Your task to perform on an android device: open app "Nova Launcher" Image 0: 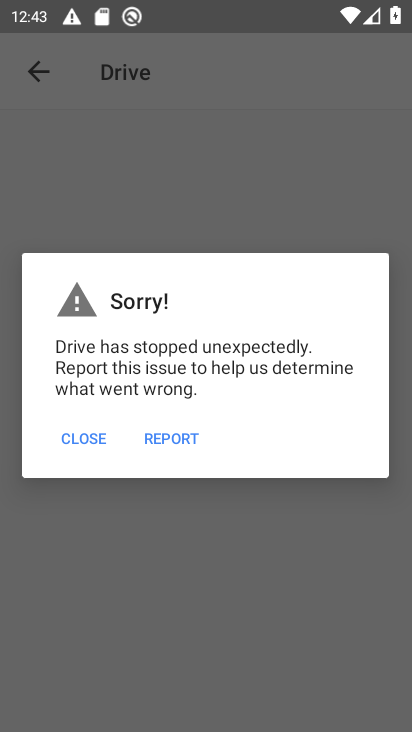
Step 0: press back button
Your task to perform on an android device: open app "Nova Launcher" Image 1: 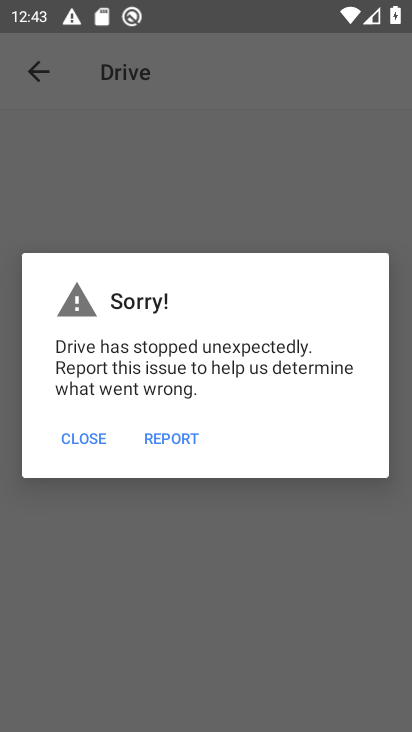
Step 1: press home button
Your task to perform on an android device: open app "Nova Launcher" Image 2: 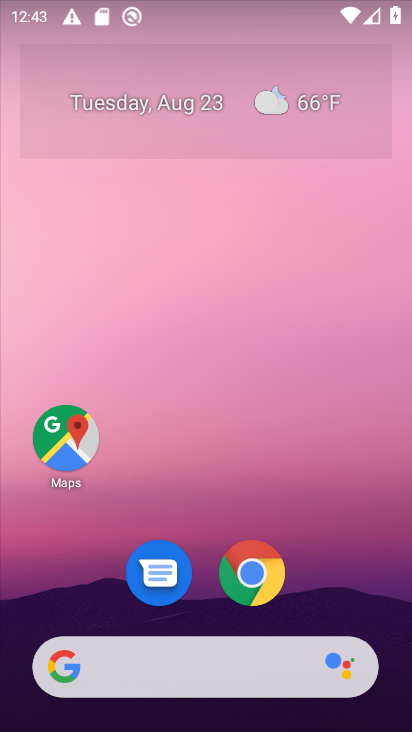
Step 2: drag from (180, 495) to (233, 175)
Your task to perform on an android device: open app "Nova Launcher" Image 3: 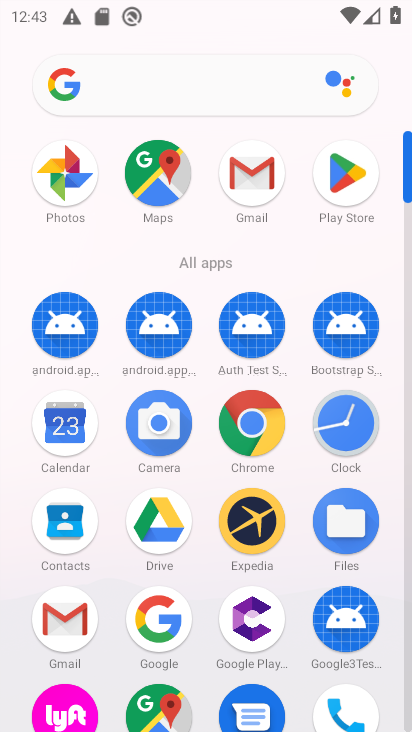
Step 3: click (332, 191)
Your task to perform on an android device: open app "Nova Launcher" Image 4: 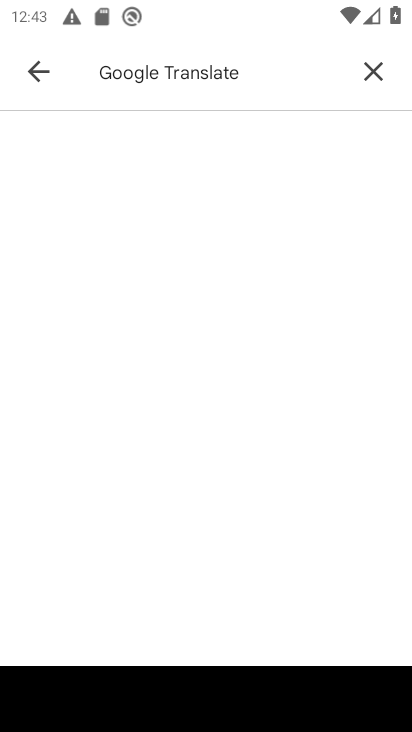
Step 4: click (370, 69)
Your task to perform on an android device: open app "Nova Launcher" Image 5: 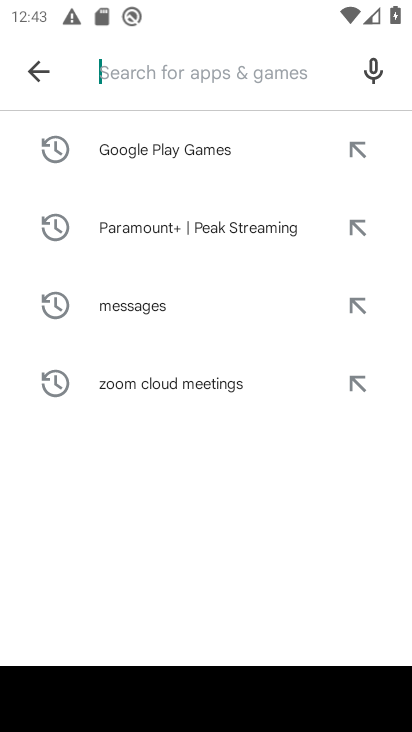
Step 5: type "Nova Launcher"
Your task to perform on an android device: open app "Nova Launcher" Image 6: 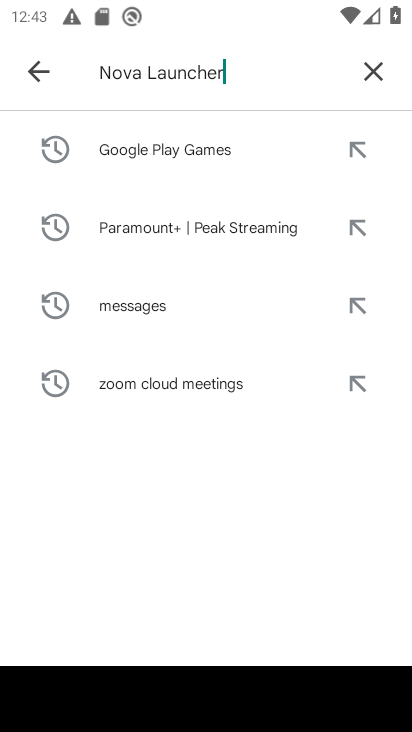
Step 6: type ""
Your task to perform on an android device: open app "Nova Launcher" Image 7: 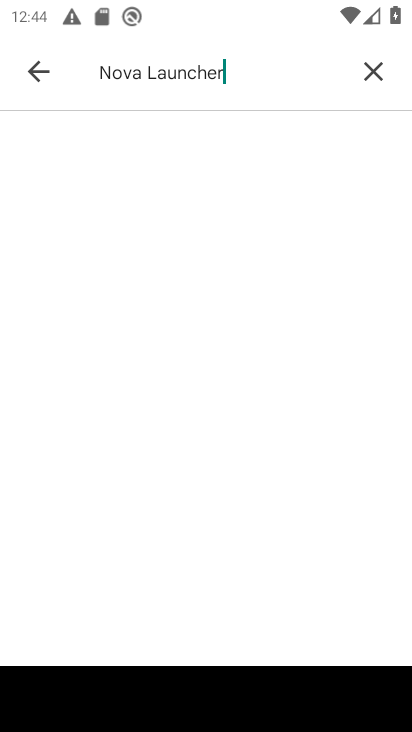
Step 7: task complete